Your task to perform on an android device: Set the phone to "Do not disturb". Image 0: 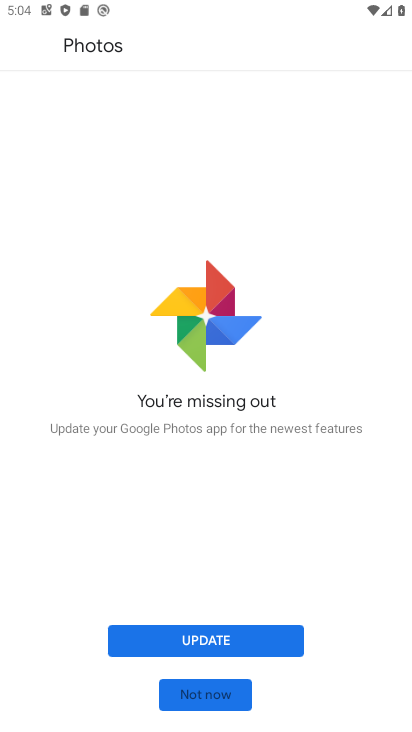
Step 0: press home button
Your task to perform on an android device: Set the phone to "Do not disturb". Image 1: 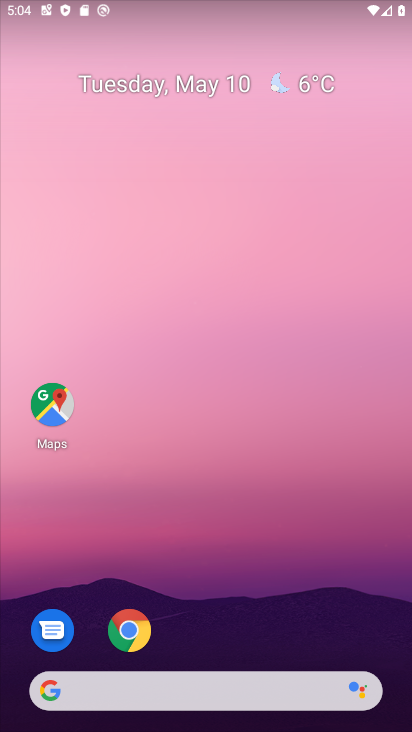
Step 1: drag from (246, 1) to (198, 457)
Your task to perform on an android device: Set the phone to "Do not disturb". Image 2: 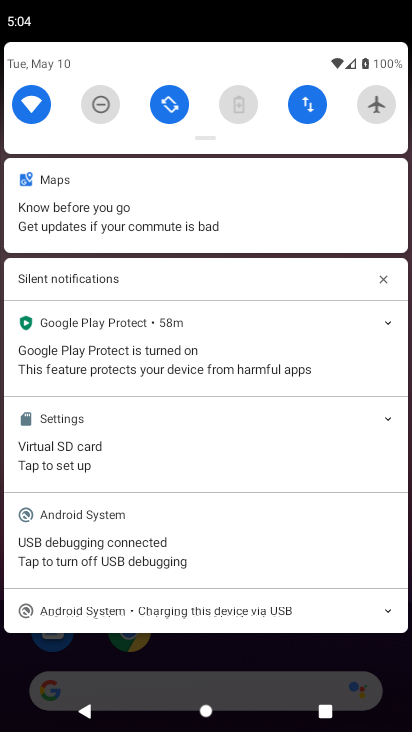
Step 2: click (97, 98)
Your task to perform on an android device: Set the phone to "Do not disturb". Image 3: 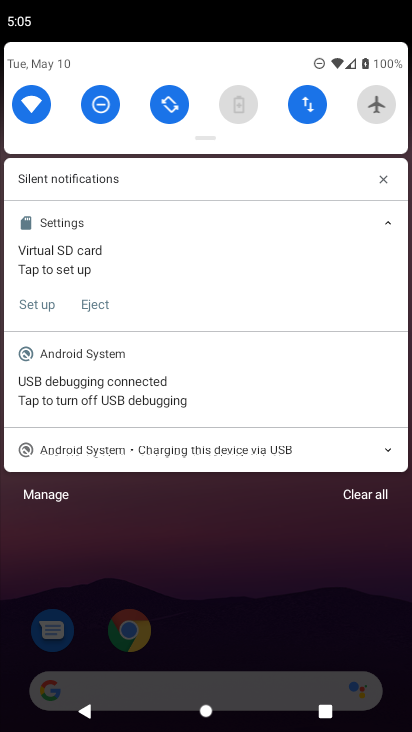
Step 3: task complete